Your task to perform on an android device: Show me some nice wallpapers for my laptop Image 0: 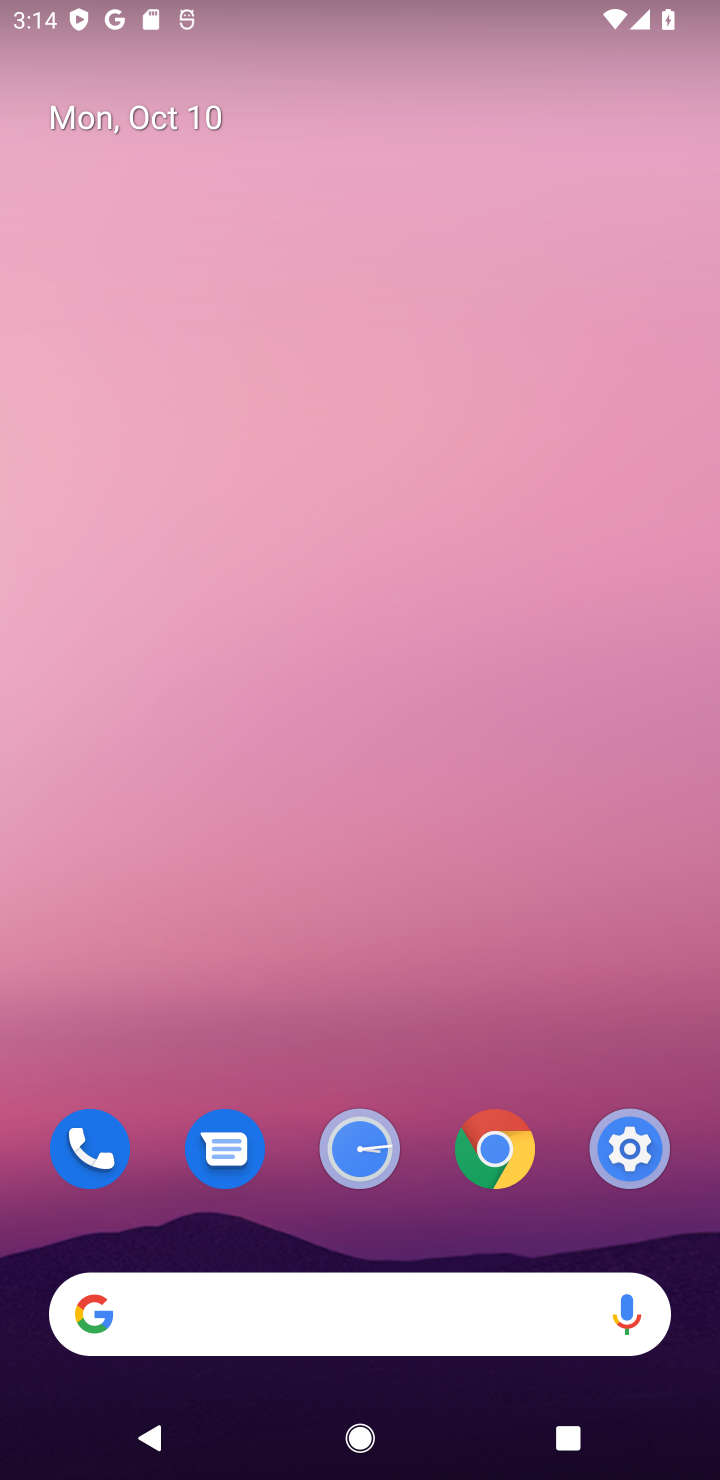
Step 0: click (364, 1325)
Your task to perform on an android device: Show me some nice wallpapers for my laptop Image 1: 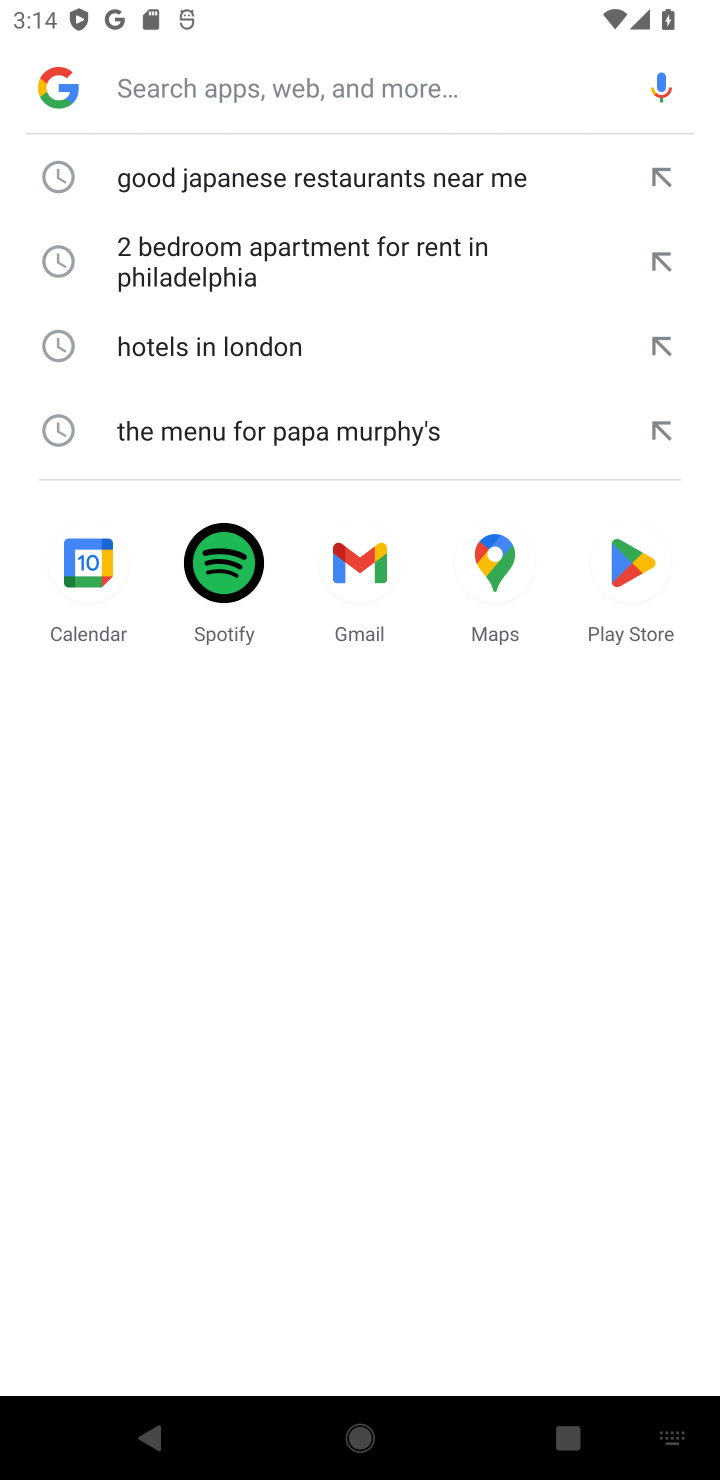
Step 1: type "Show me some nice wallpapers for my laptop"
Your task to perform on an android device: Show me some nice wallpapers for my laptop Image 2: 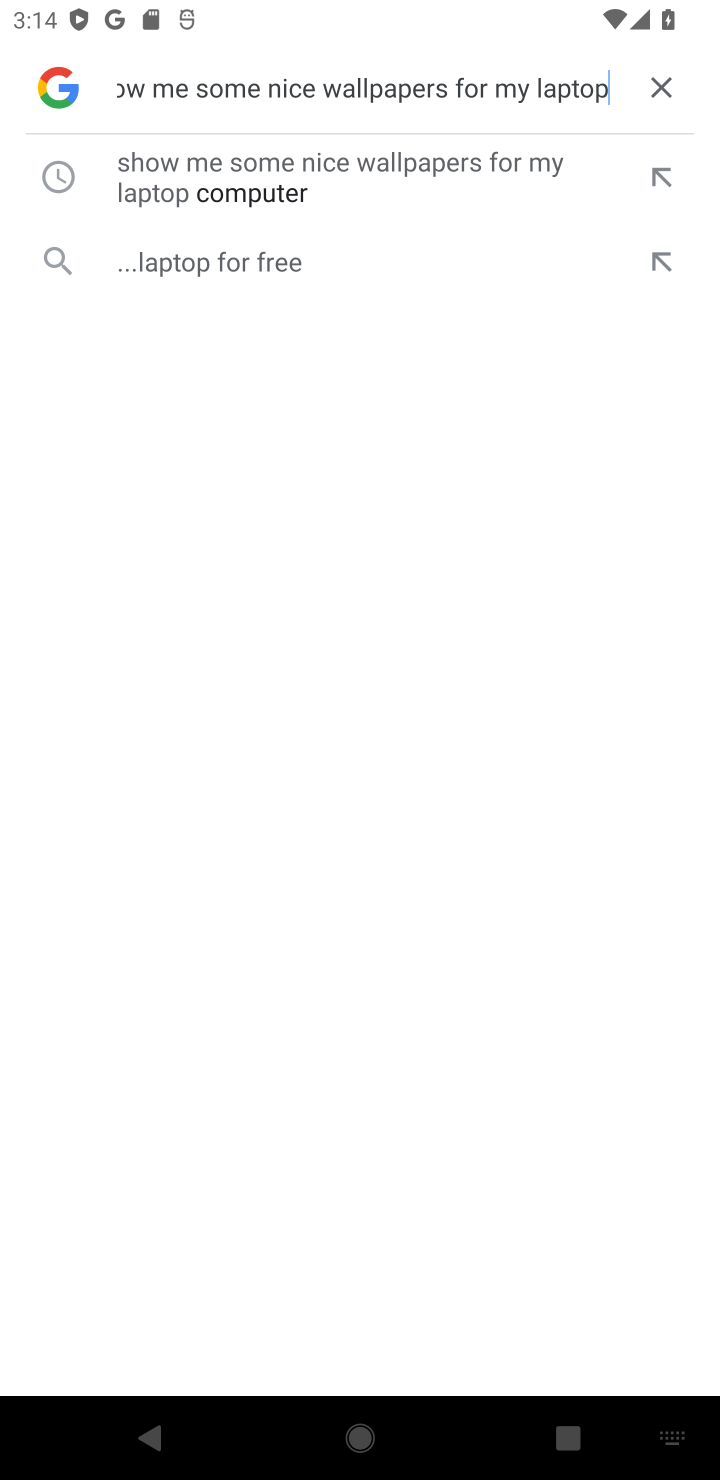
Step 2: click (307, 200)
Your task to perform on an android device: Show me some nice wallpapers for my laptop Image 3: 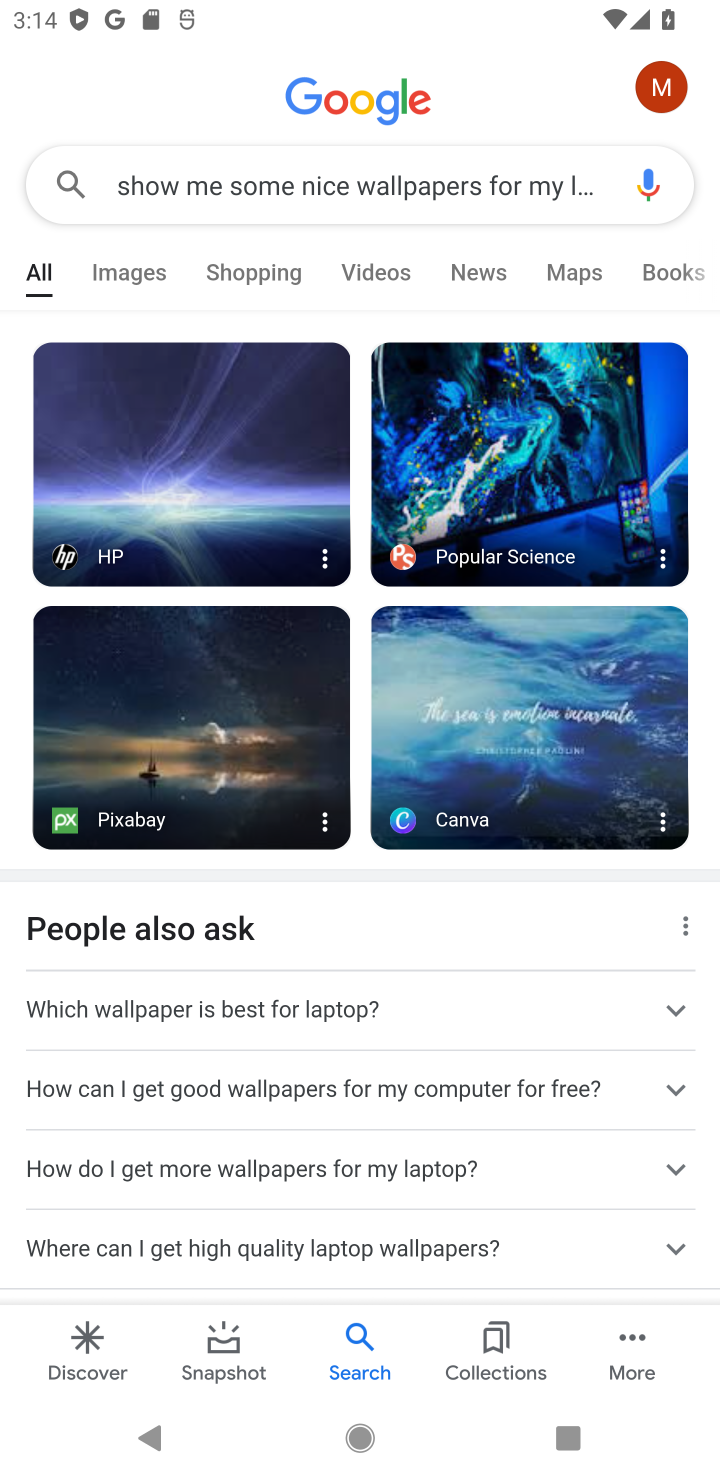
Step 3: task complete